Your task to perform on an android device: turn off wifi Image 0: 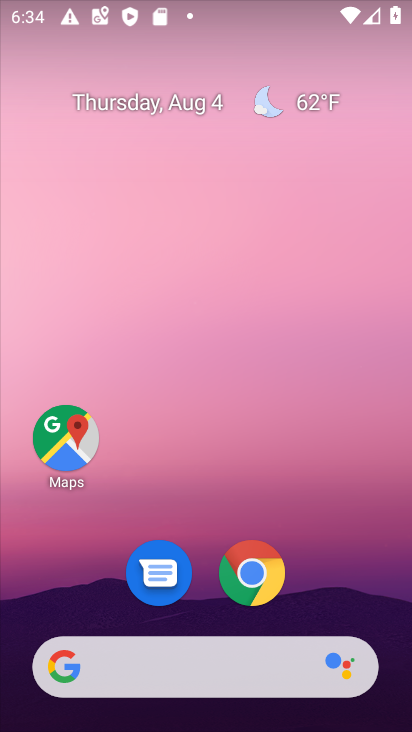
Step 0: drag from (252, 0) to (180, 579)
Your task to perform on an android device: turn off wifi Image 1: 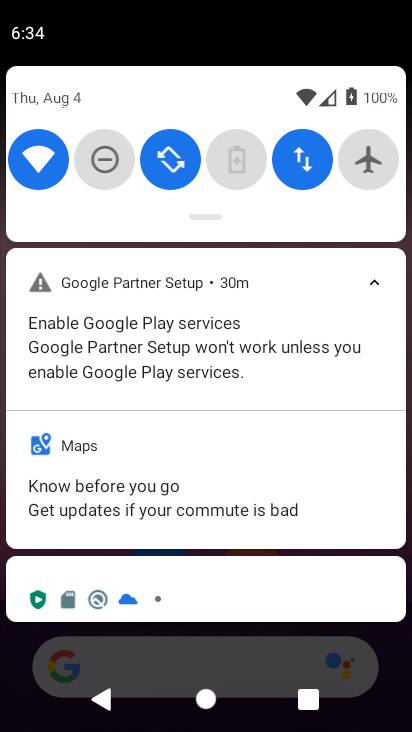
Step 1: click (34, 152)
Your task to perform on an android device: turn off wifi Image 2: 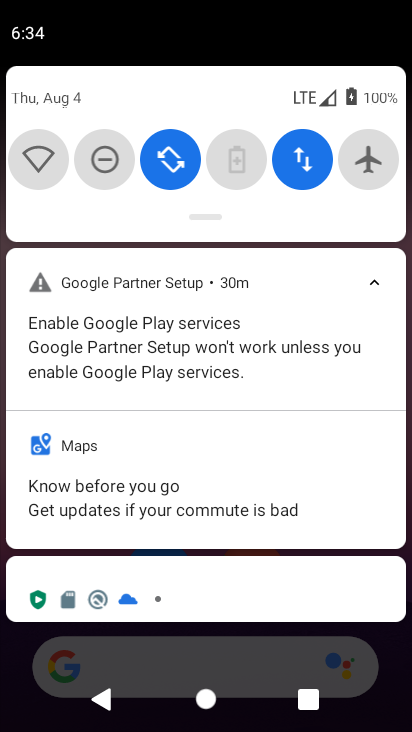
Step 2: task complete